Your task to perform on an android device: turn off notifications settings in the gmail app Image 0: 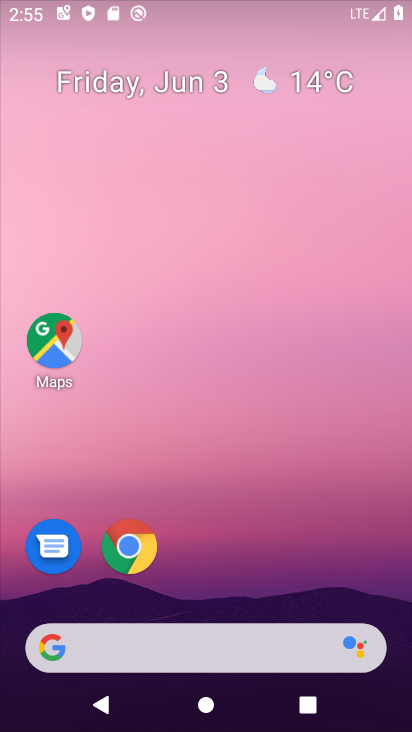
Step 0: drag from (275, 589) to (409, 361)
Your task to perform on an android device: turn off notifications settings in the gmail app Image 1: 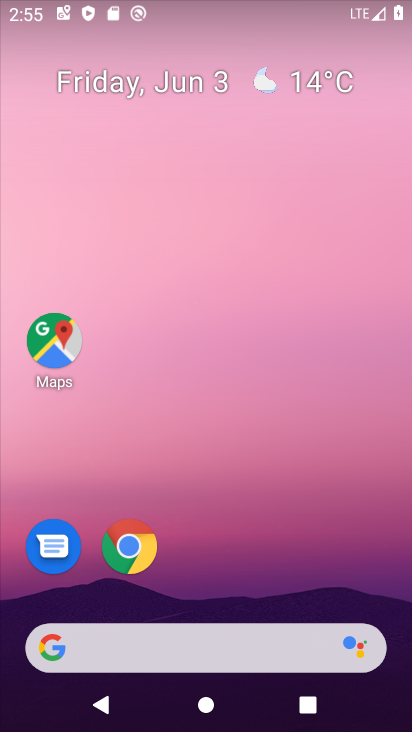
Step 1: drag from (259, 466) to (359, 122)
Your task to perform on an android device: turn off notifications settings in the gmail app Image 2: 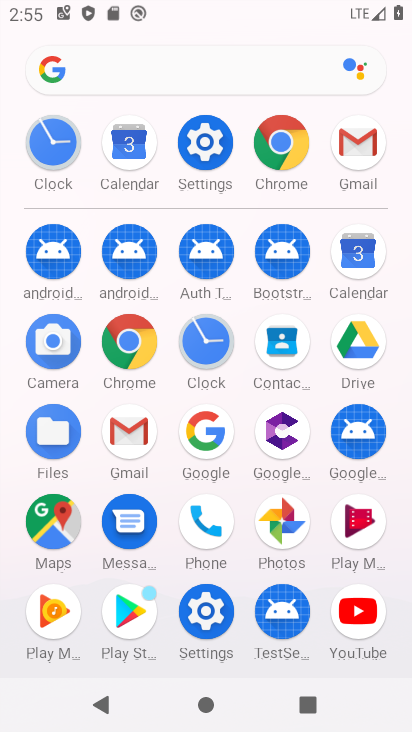
Step 2: click (358, 167)
Your task to perform on an android device: turn off notifications settings in the gmail app Image 3: 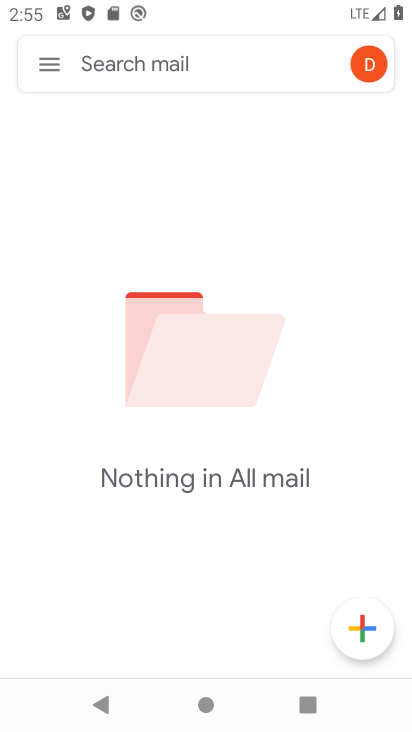
Step 3: click (67, 68)
Your task to perform on an android device: turn off notifications settings in the gmail app Image 4: 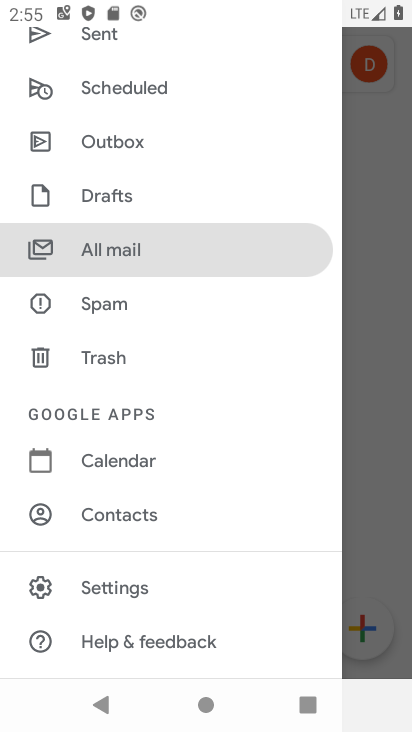
Step 4: click (92, 559)
Your task to perform on an android device: turn off notifications settings in the gmail app Image 5: 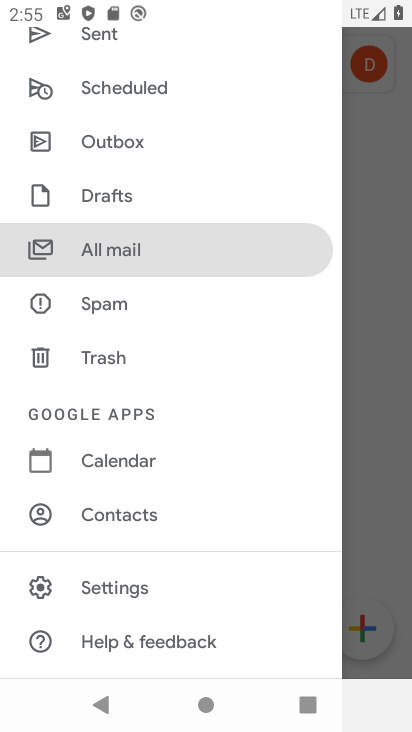
Step 5: click (109, 586)
Your task to perform on an android device: turn off notifications settings in the gmail app Image 6: 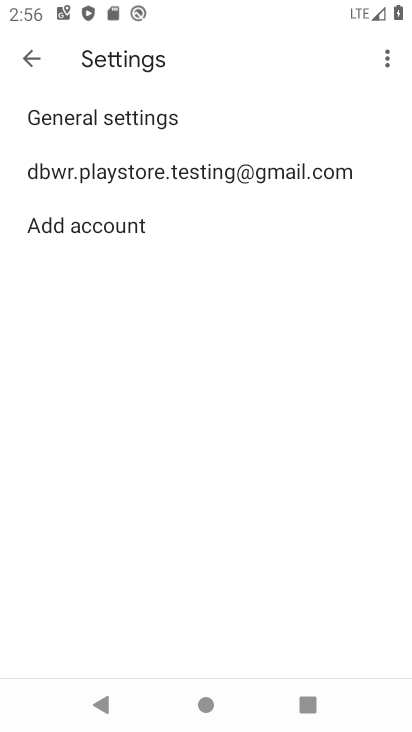
Step 6: click (210, 193)
Your task to perform on an android device: turn off notifications settings in the gmail app Image 7: 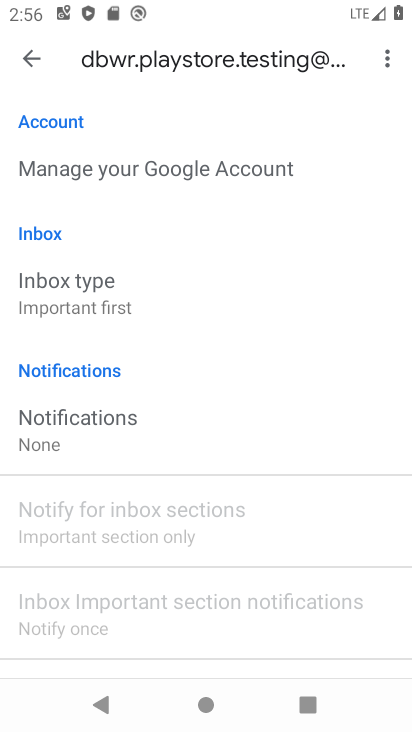
Step 7: click (40, 423)
Your task to perform on an android device: turn off notifications settings in the gmail app Image 8: 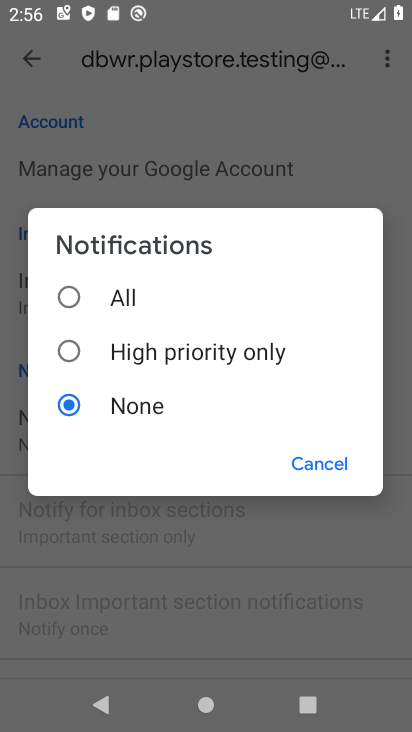
Step 8: task complete